Your task to perform on an android device: check google app version Image 0: 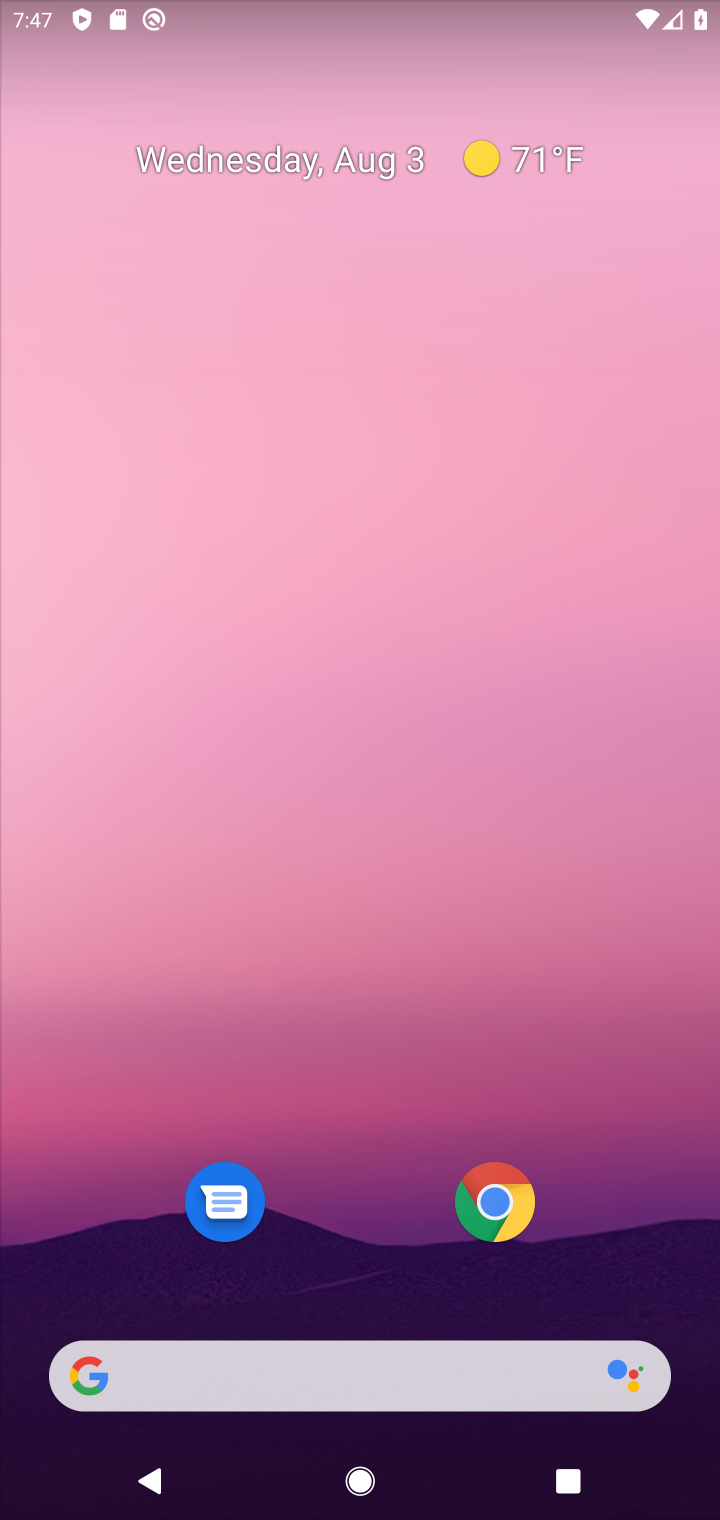
Step 0: press home button
Your task to perform on an android device: check google app version Image 1: 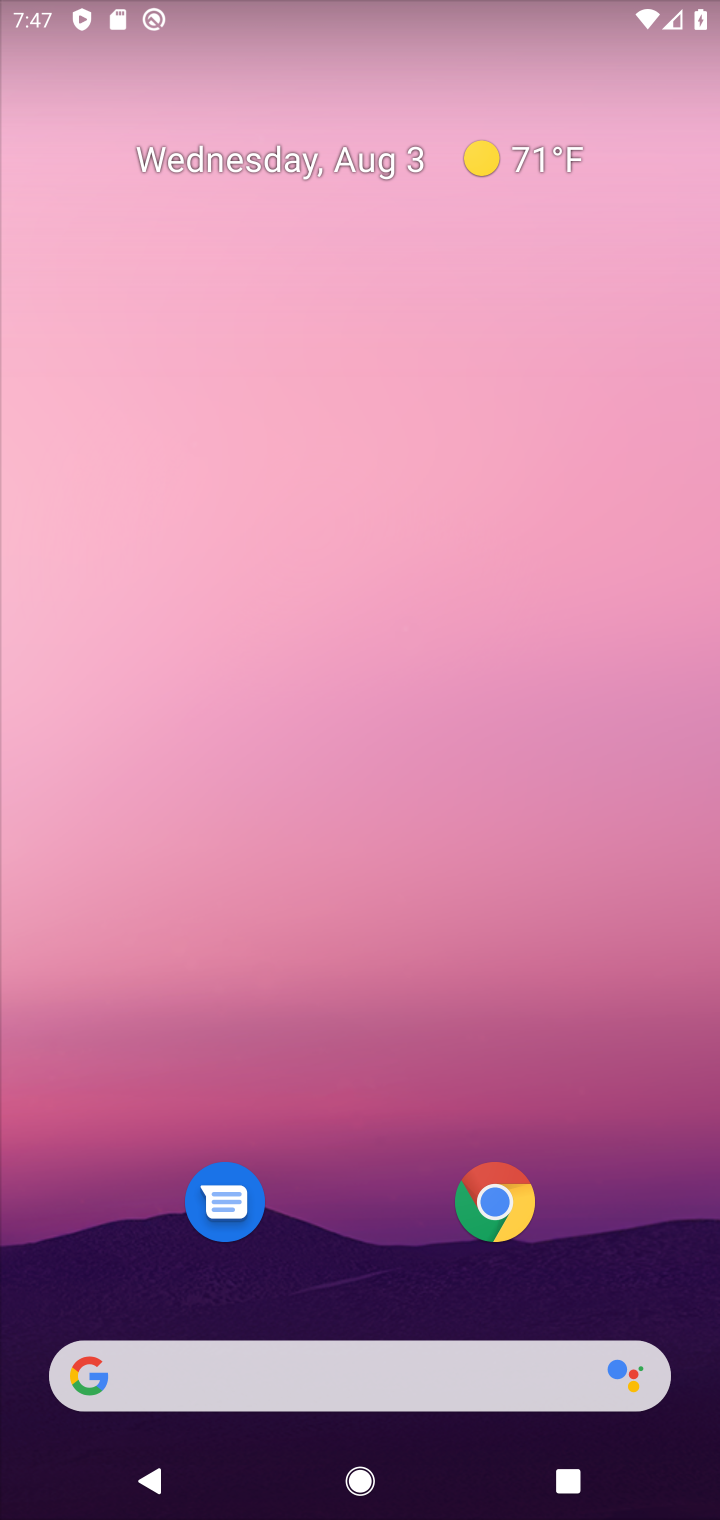
Step 1: drag from (236, 1384) to (347, 216)
Your task to perform on an android device: check google app version Image 2: 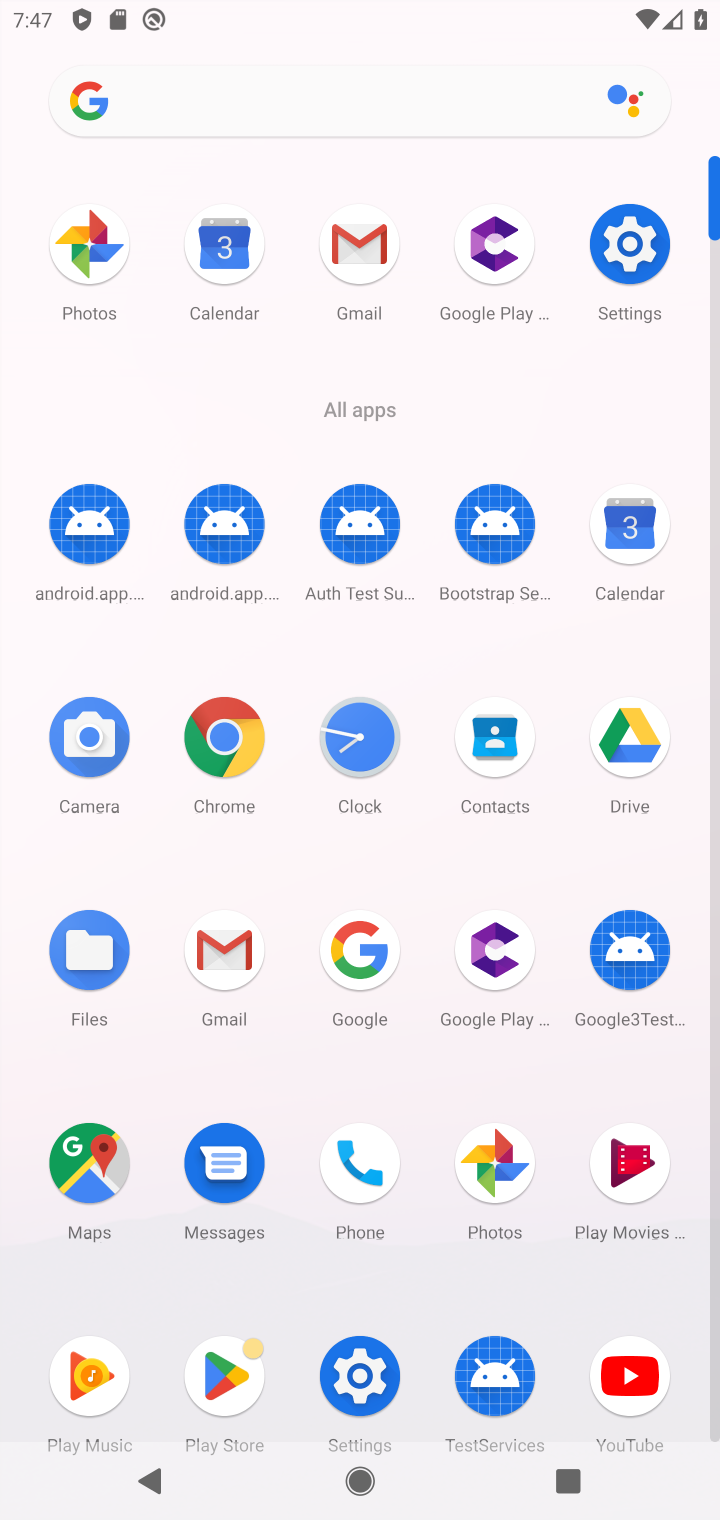
Step 2: click (354, 957)
Your task to perform on an android device: check google app version Image 3: 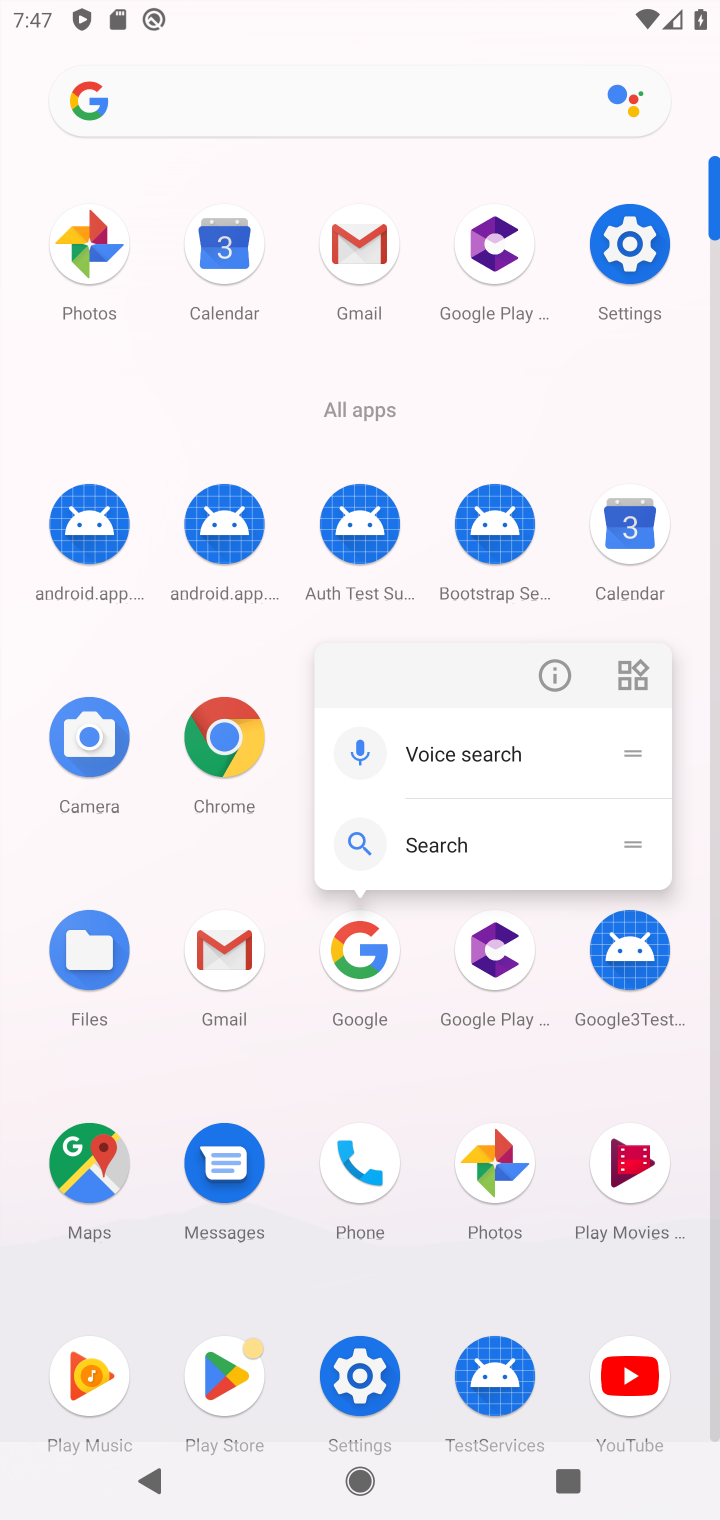
Step 3: click (556, 677)
Your task to perform on an android device: check google app version Image 4: 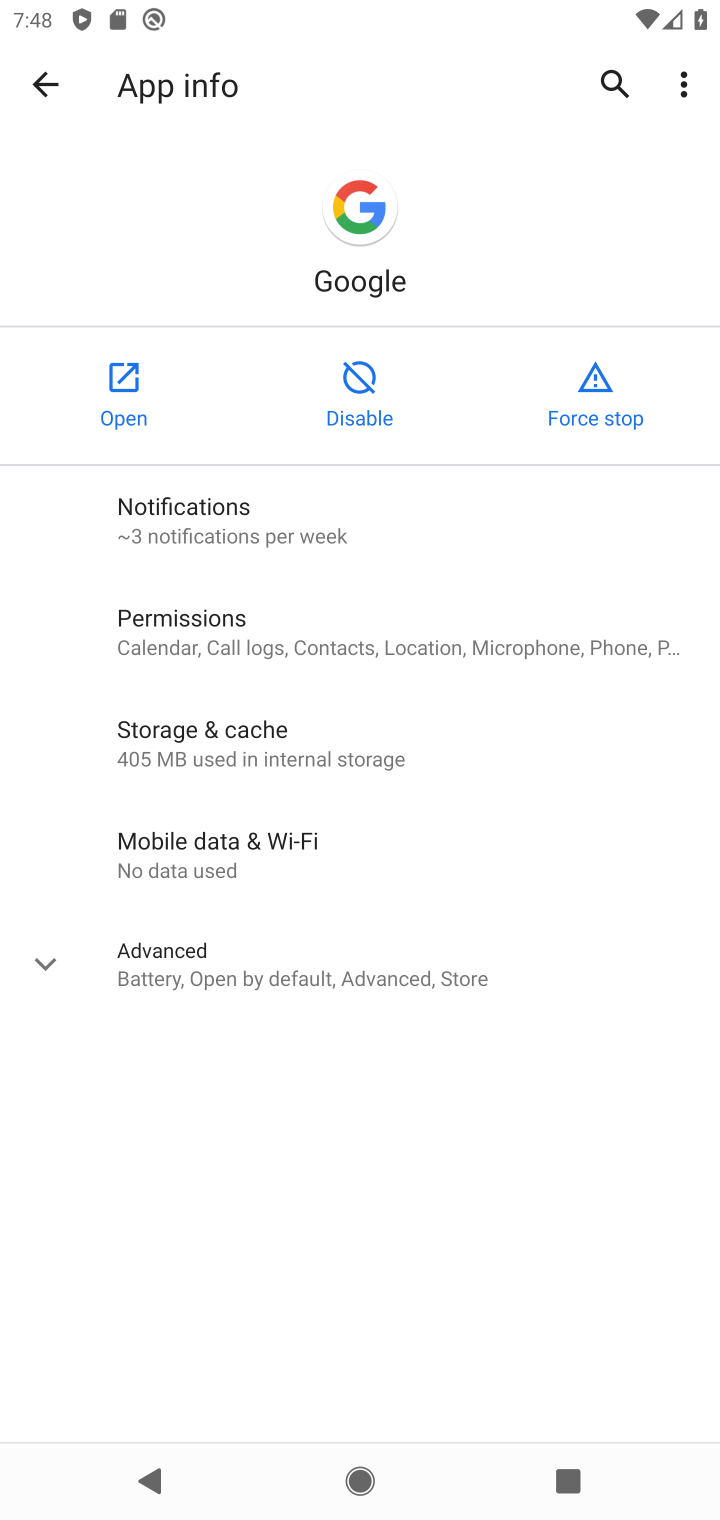
Step 4: click (187, 984)
Your task to perform on an android device: check google app version Image 5: 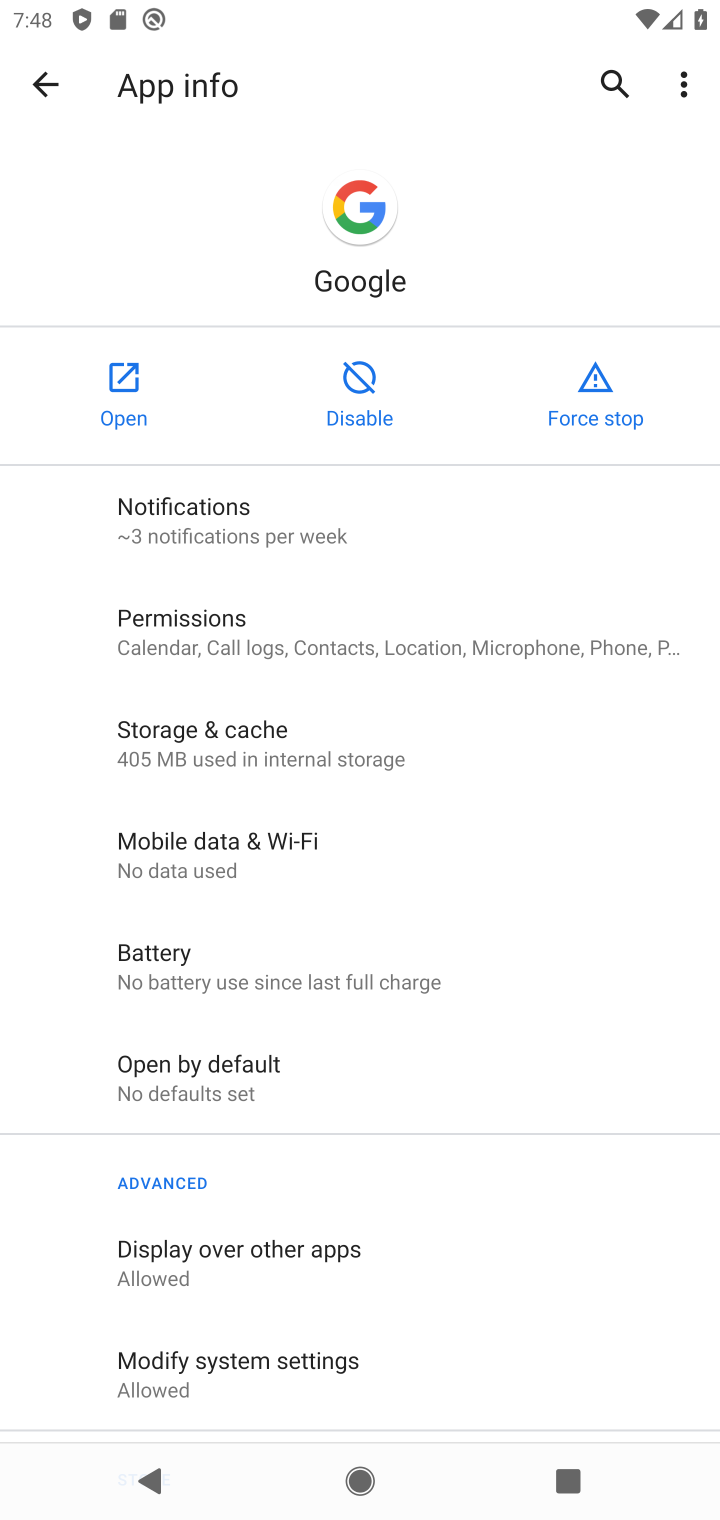
Step 5: task complete